Your task to perform on an android device: Open the Play Movies app and select the watchlist tab. Image 0: 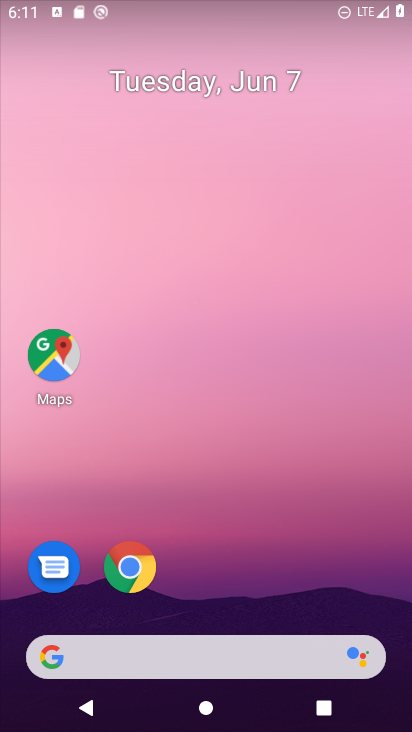
Step 0: drag from (317, 670) to (330, 0)
Your task to perform on an android device: Open the Play Movies app and select the watchlist tab. Image 1: 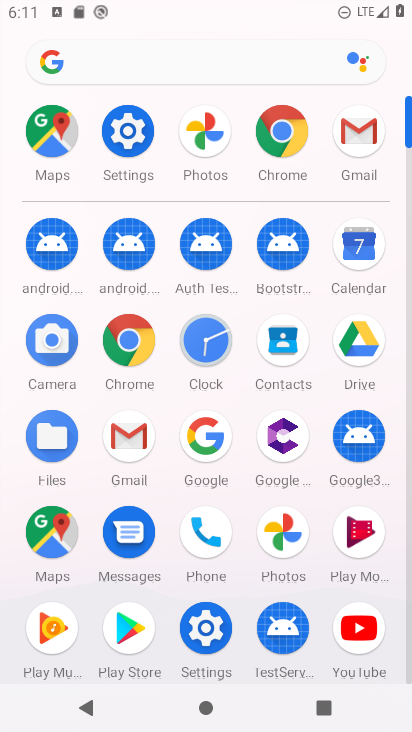
Step 1: drag from (264, 600) to (263, 331)
Your task to perform on an android device: Open the Play Movies app and select the watchlist tab. Image 2: 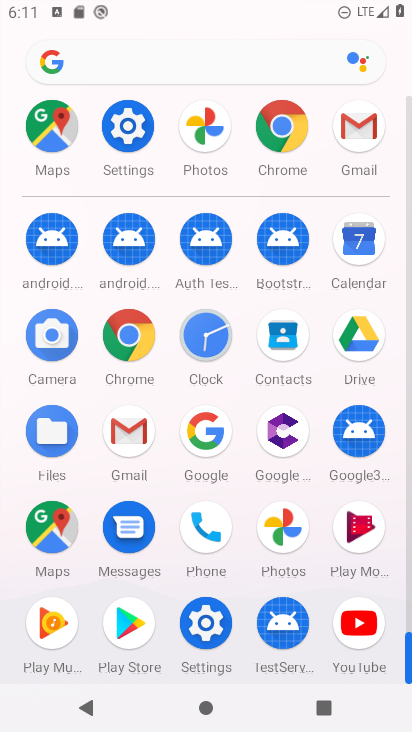
Step 2: click (375, 540)
Your task to perform on an android device: Open the Play Movies app and select the watchlist tab. Image 3: 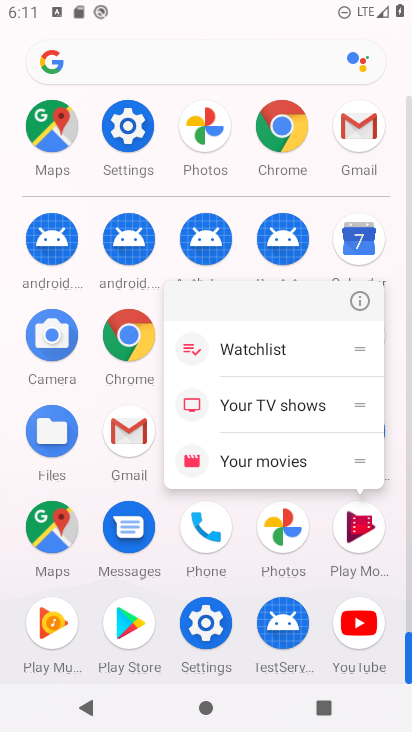
Step 3: click (362, 526)
Your task to perform on an android device: Open the Play Movies app and select the watchlist tab. Image 4: 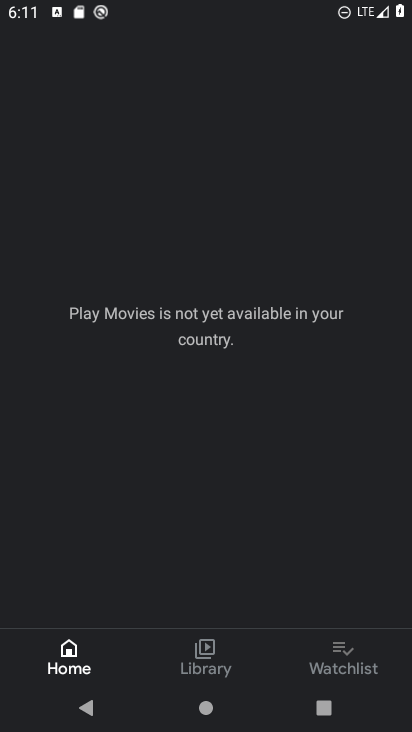
Step 4: click (367, 660)
Your task to perform on an android device: Open the Play Movies app and select the watchlist tab. Image 5: 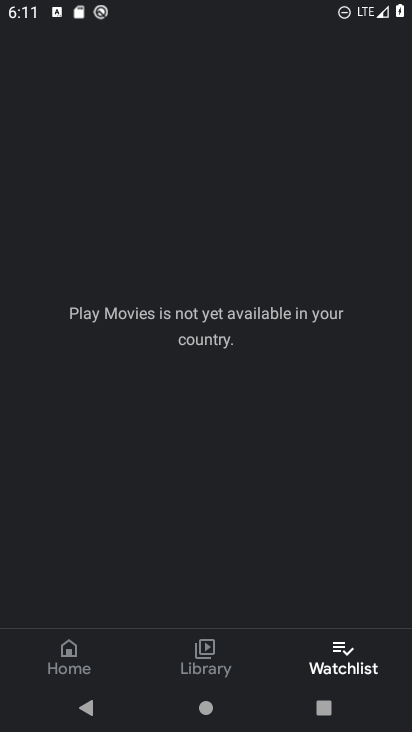
Step 5: task complete